Your task to perform on an android device: Open location settings Image 0: 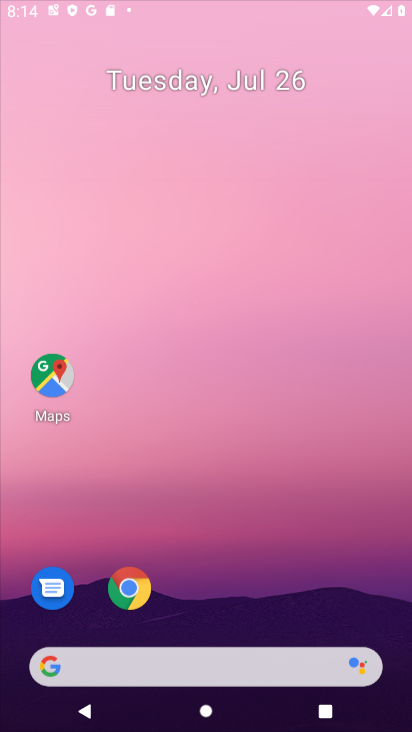
Step 0: press home button
Your task to perform on an android device: Open location settings Image 1: 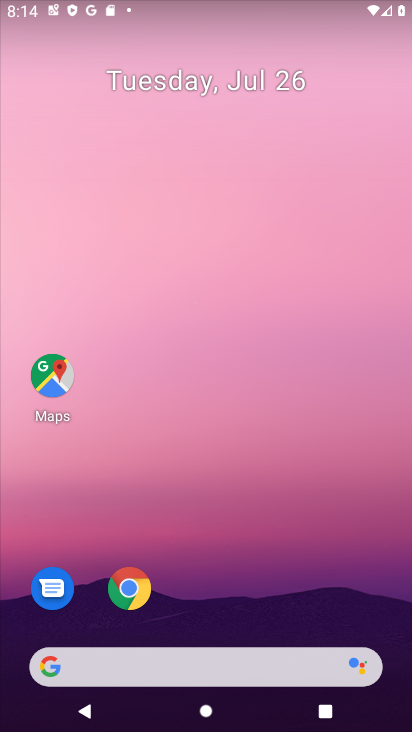
Step 1: drag from (273, 634) to (252, 210)
Your task to perform on an android device: Open location settings Image 2: 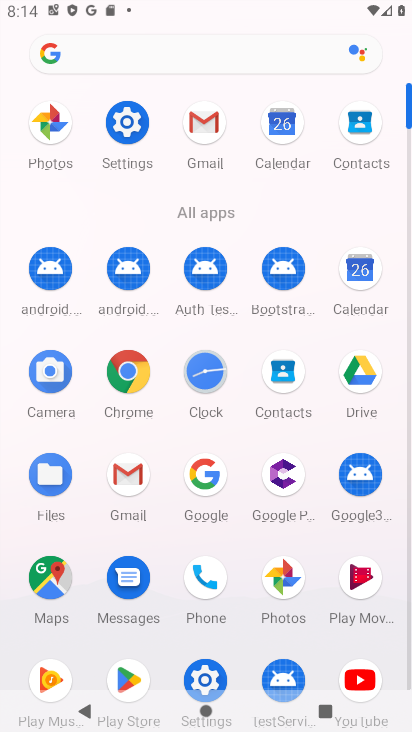
Step 2: click (112, 114)
Your task to perform on an android device: Open location settings Image 3: 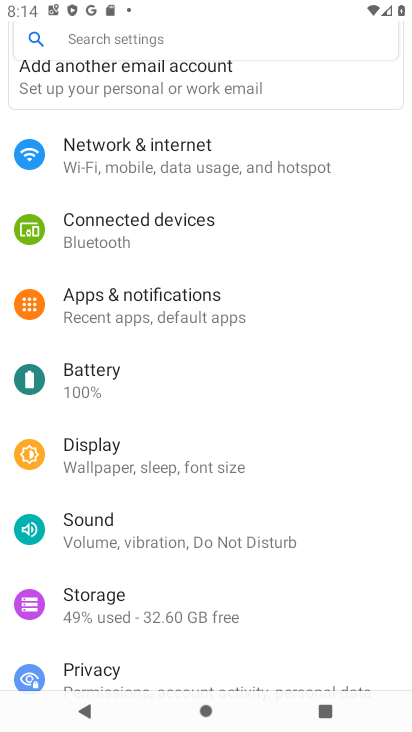
Step 3: drag from (85, 564) to (152, 192)
Your task to perform on an android device: Open location settings Image 4: 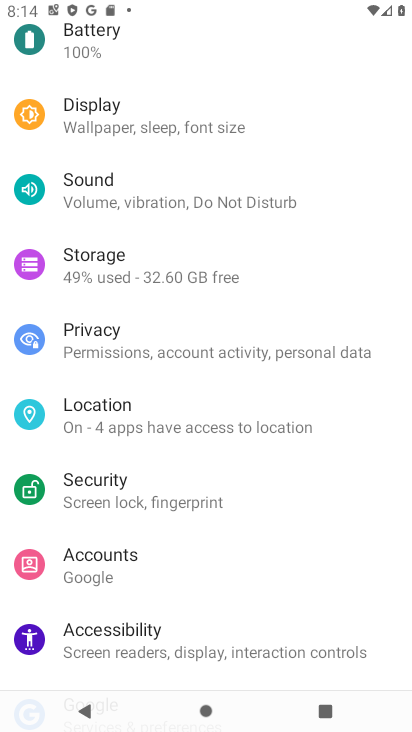
Step 4: click (72, 420)
Your task to perform on an android device: Open location settings Image 5: 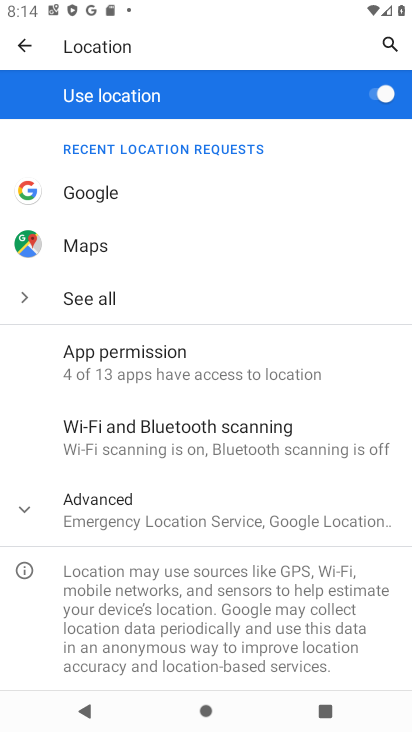
Step 5: task complete